Your task to perform on an android device: turn smart compose on in the gmail app Image 0: 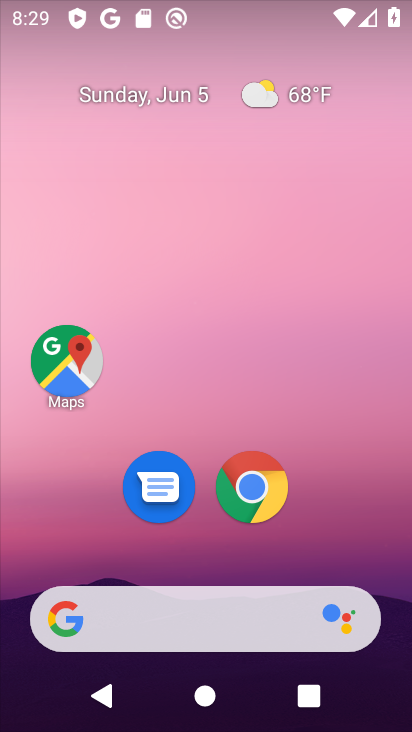
Step 0: drag from (156, 486) to (221, 18)
Your task to perform on an android device: turn smart compose on in the gmail app Image 1: 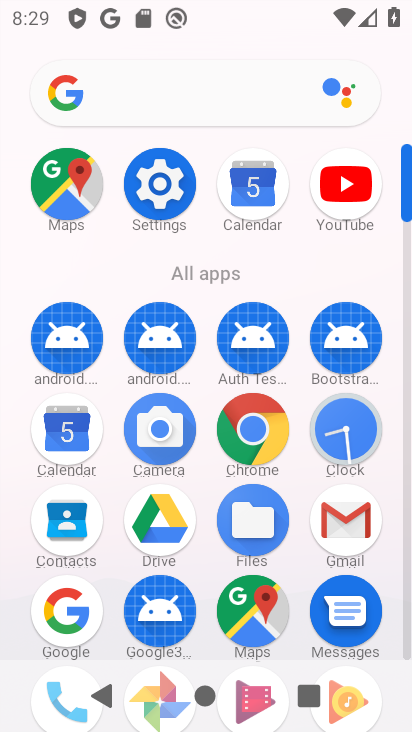
Step 1: click (344, 518)
Your task to perform on an android device: turn smart compose on in the gmail app Image 2: 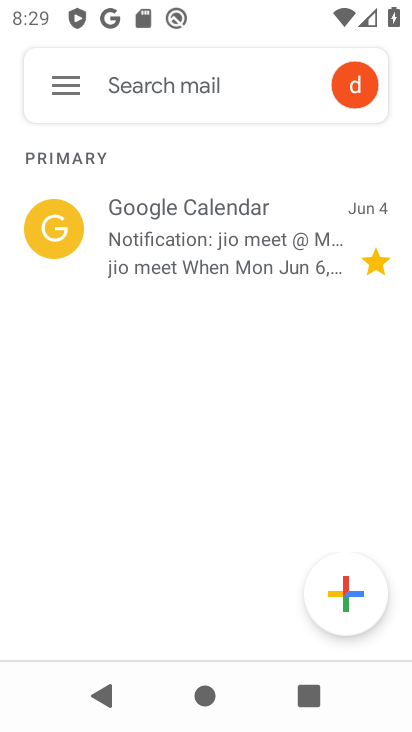
Step 2: click (53, 88)
Your task to perform on an android device: turn smart compose on in the gmail app Image 3: 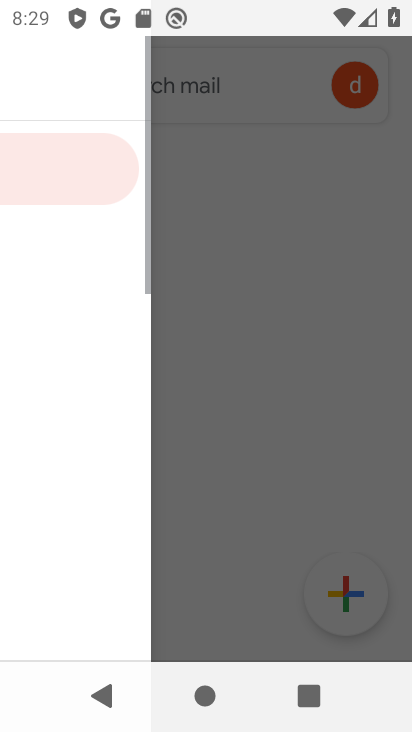
Step 3: drag from (148, 667) to (226, 193)
Your task to perform on an android device: turn smart compose on in the gmail app Image 4: 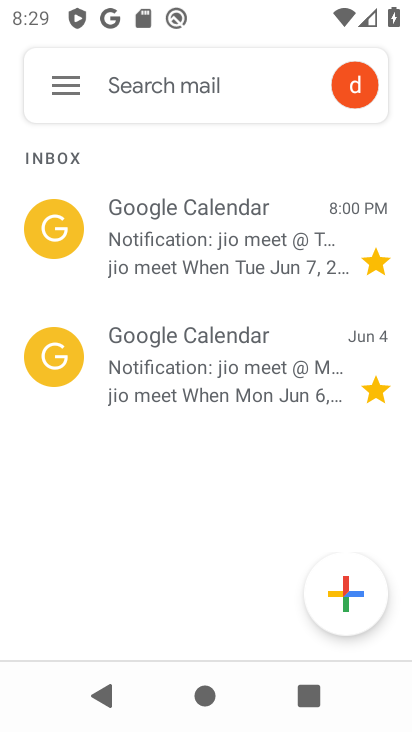
Step 4: click (64, 82)
Your task to perform on an android device: turn smart compose on in the gmail app Image 5: 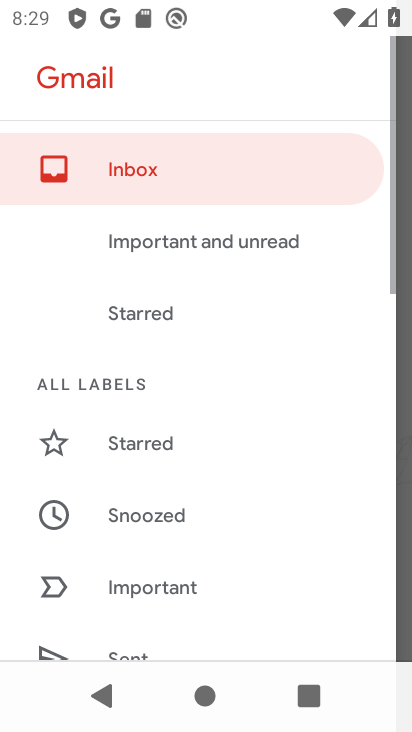
Step 5: drag from (153, 572) to (224, 19)
Your task to perform on an android device: turn smart compose on in the gmail app Image 6: 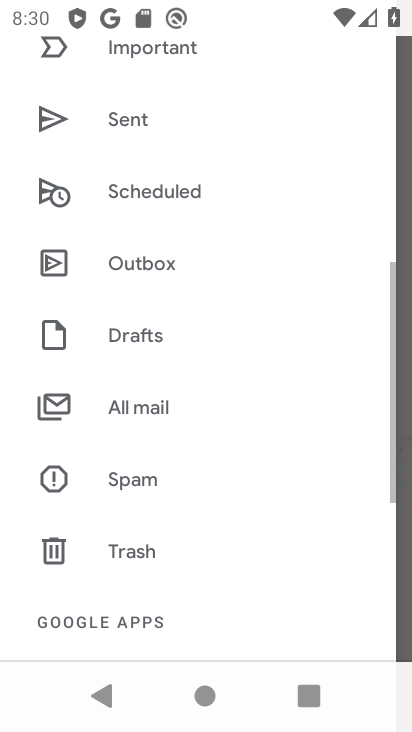
Step 6: drag from (146, 587) to (242, 60)
Your task to perform on an android device: turn smart compose on in the gmail app Image 7: 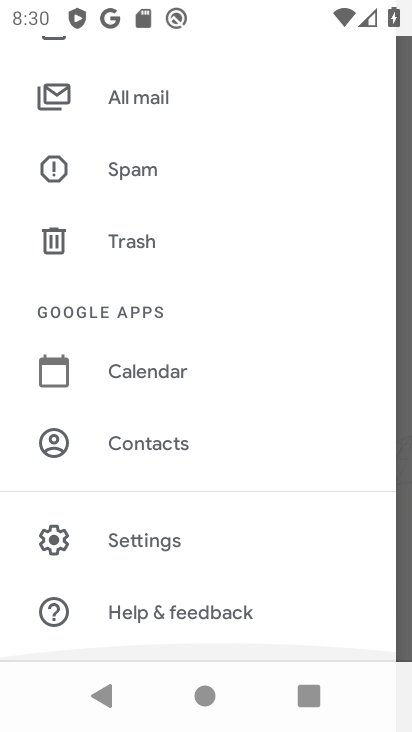
Step 7: click (153, 543)
Your task to perform on an android device: turn smart compose on in the gmail app Image 8: 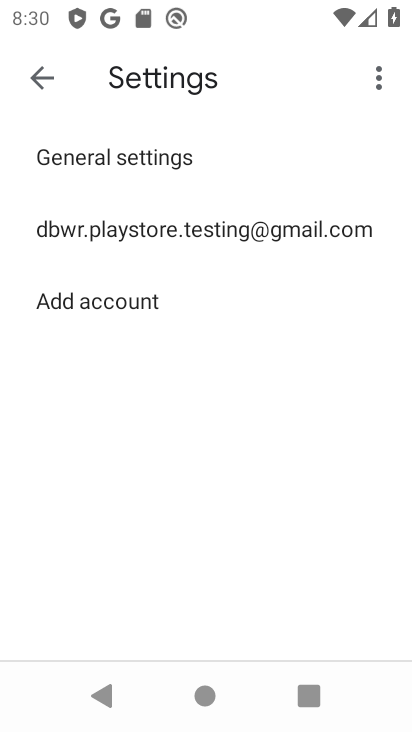
Step 8: click (105, 262)
Your task to perform on an android device: turn smart compose on in the gmail app Image 9: 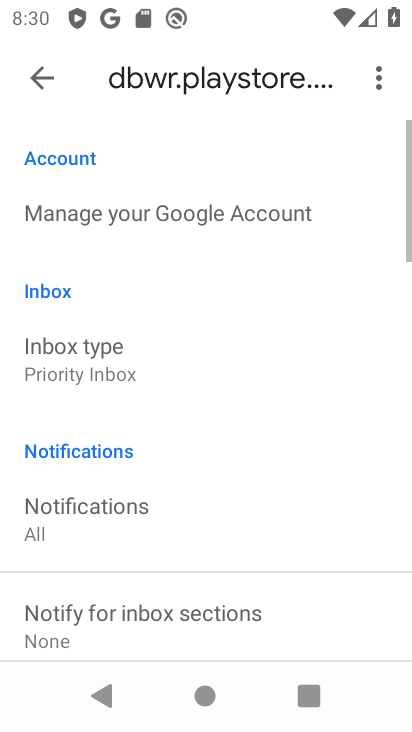
Step 9: task complete